Your task to perform on an android device: Open sound settings Image 0: 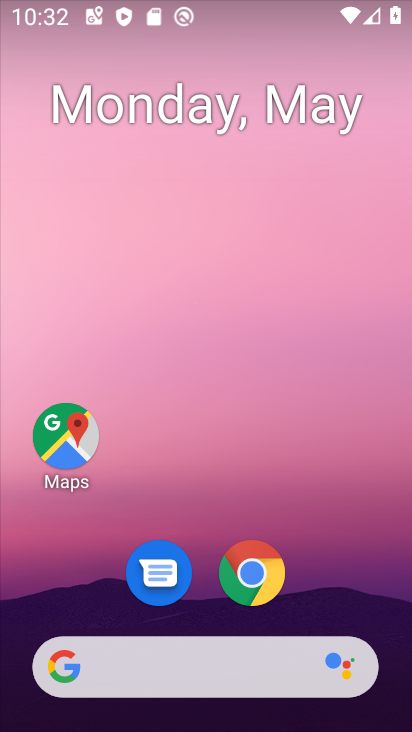
Step 0: drag from (234, 556) to (263, 64)
Your task to perform on an android device: Open sound settings Image 1: 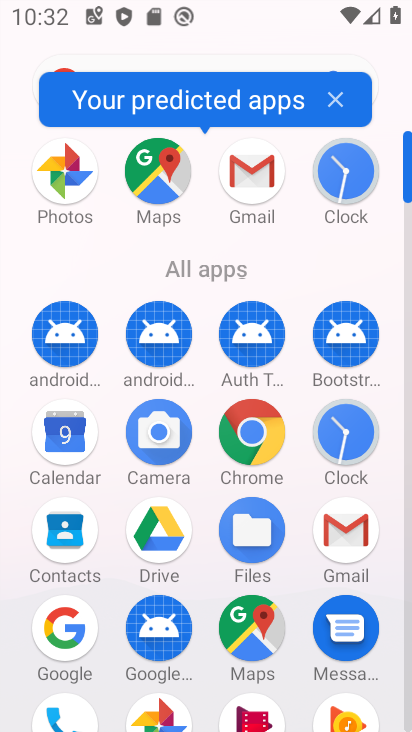
Step 1: drag from (190, 627) to (278, 184)
Your task to perform on an android device: Open sound settings Image 2: 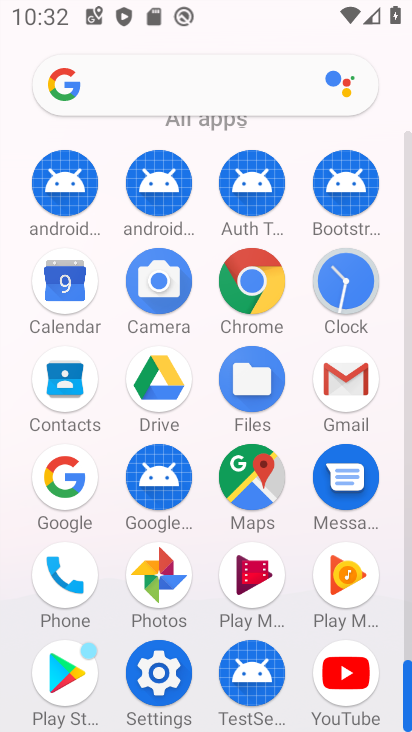
Step 2: click (161, 659)
Your task to perform on an android device: Open sound settings Image 3: 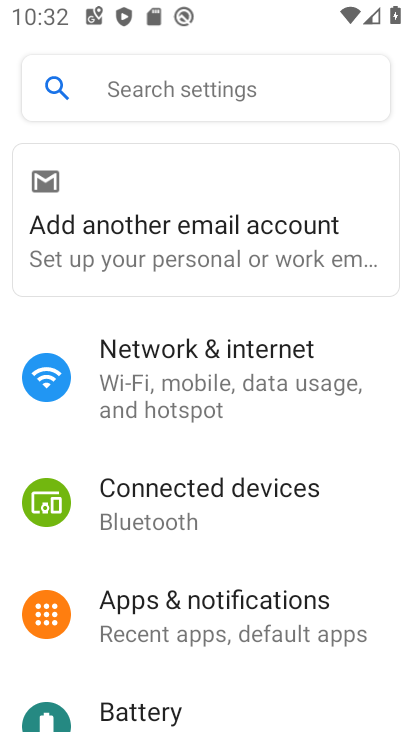
Step 3: drag from (155, 678) to (275, 201)
Your task to perform on an android device: Open sound settings Image 4: 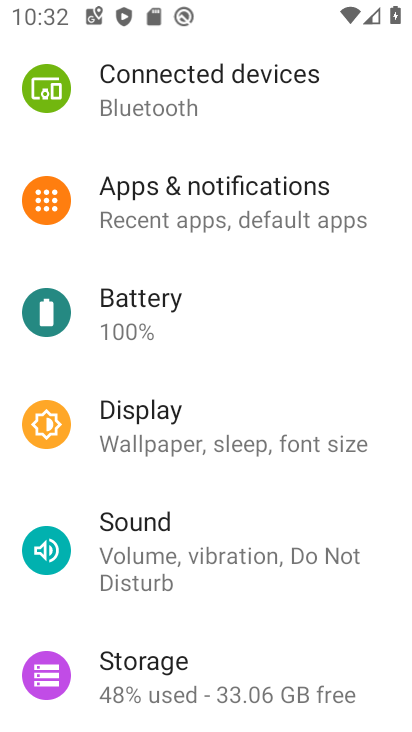
Step 4: click (108, 541)
Your task to perform on an android device: Open sound settings Image 5: 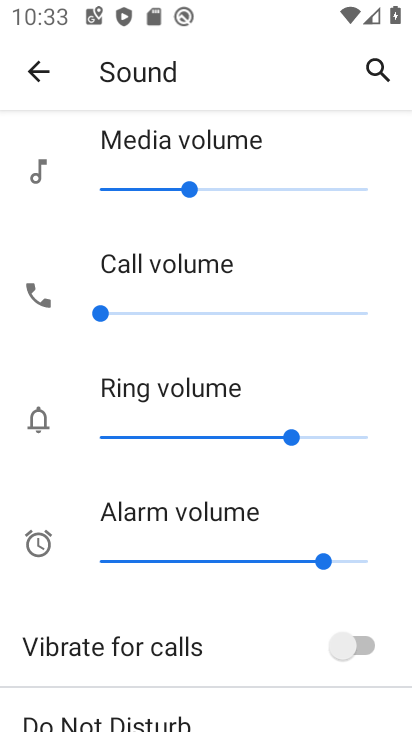
Step 5: task complete